Your task to perform on an android device: open the mobile data screen to see how much data has been used Image 0: 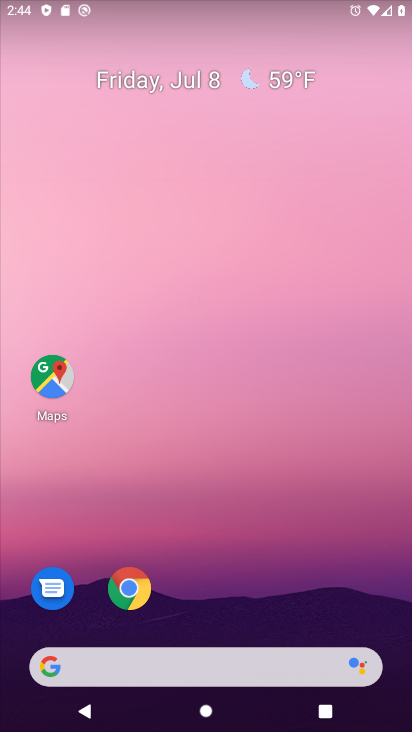
Step 0: drag from (261, 625) to (328, 44)
Your task to perform on an android device: open the mobile data screen to see how much data has been used Image 1: 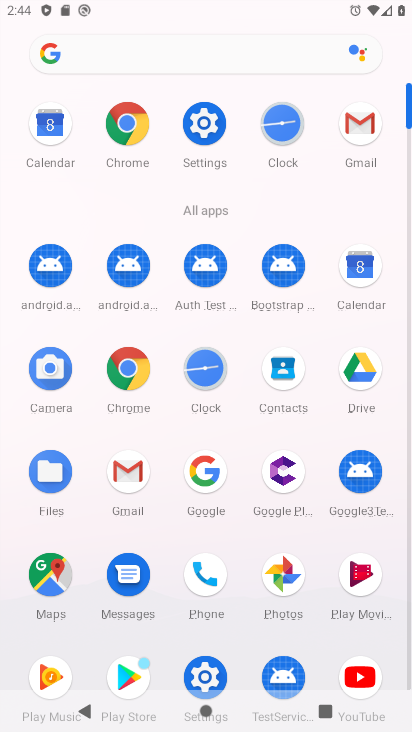
Step 1: click (194, 128)
Your task to perform on an android device: open the mobile data screen to see how much data has been used Image 2: 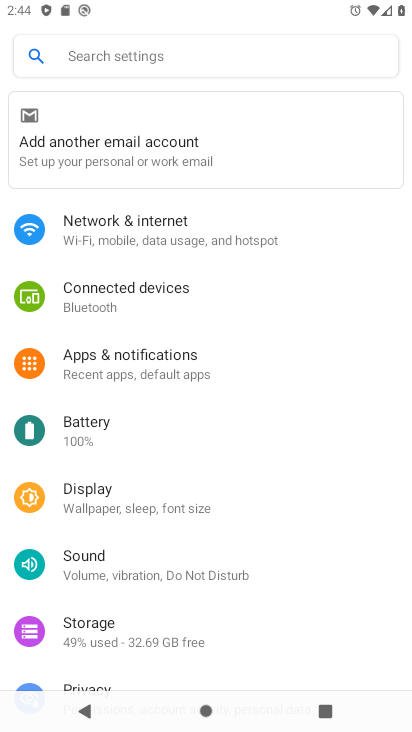
Step 2: click (137, 238)
Your task to perform on an android device: open the mobile data screen to see how much data has been used Image 3: 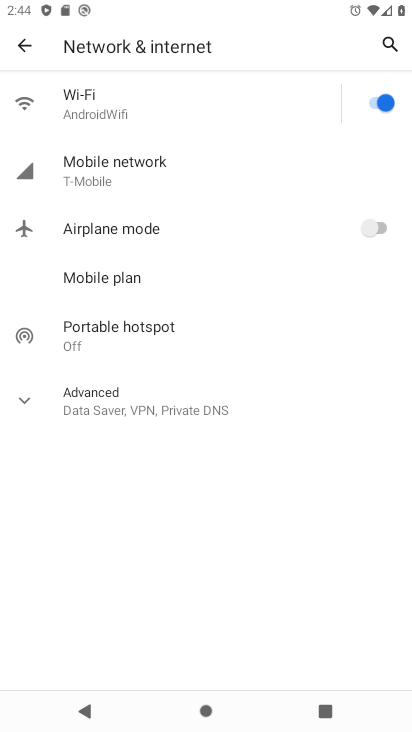
Step 3: click (128, 169)
Your task to perform on an android device: open the mobile data screen to see how much data has been used Image 4: 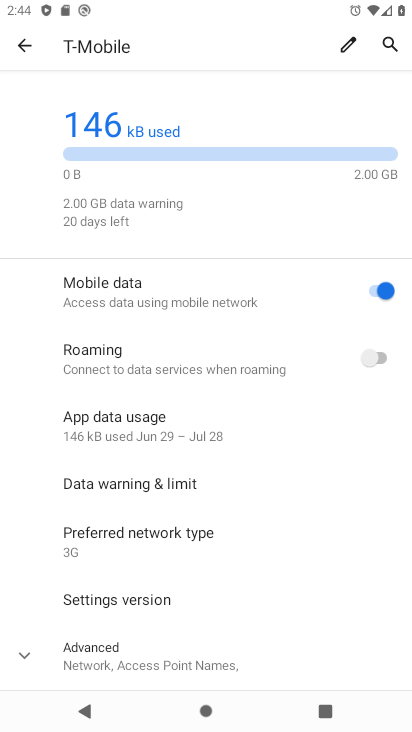
Step 4: click (172, 436)
Your task to perform on an android device: open the mobile data screen to see how much data has been used Image 5: 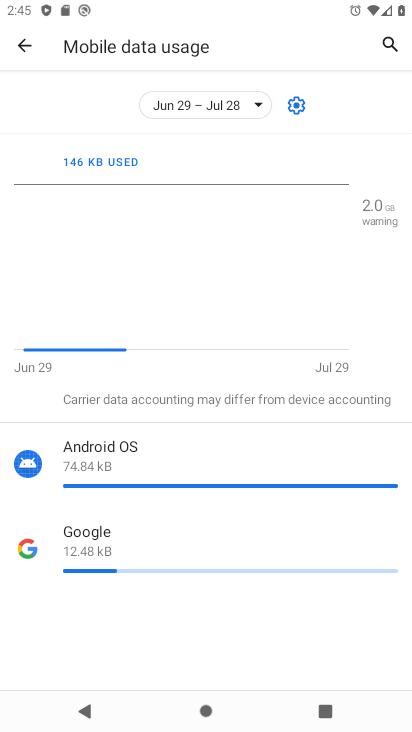
Step 5: task complete